Your task to perform on an android device: What's the news about the US dollar exchange rate? Image 0: 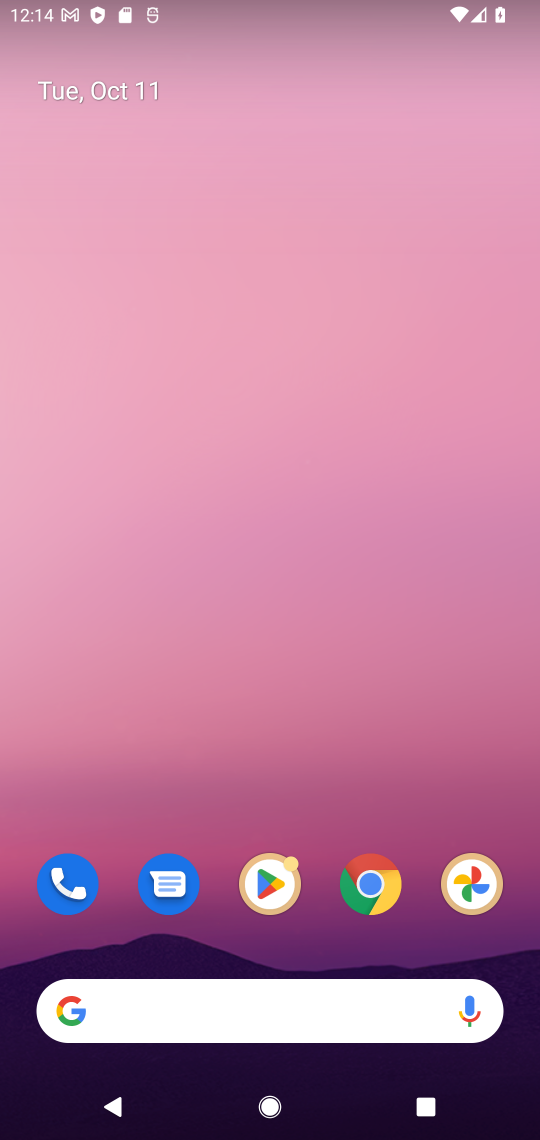
Step 0: click (257, 1017)
Your task to perform on an android device: What's the news about the US dollar exchange rate? Image 1: 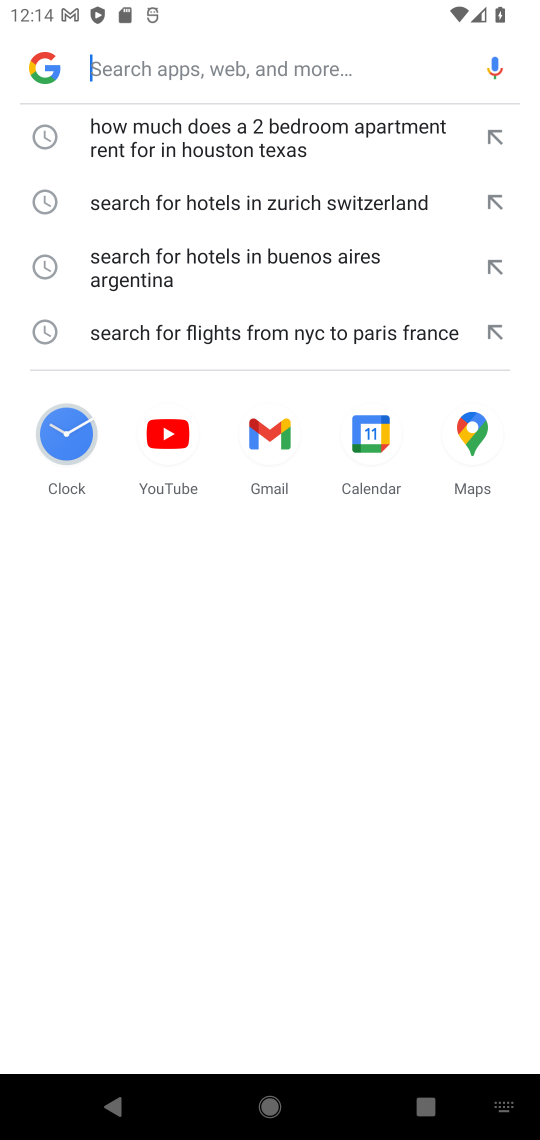
Step 1: type "What's the news about the US dollar exchange rate?"
Your task to perform on an android device: What's the news about the US dollar exchange rate? Image 2: 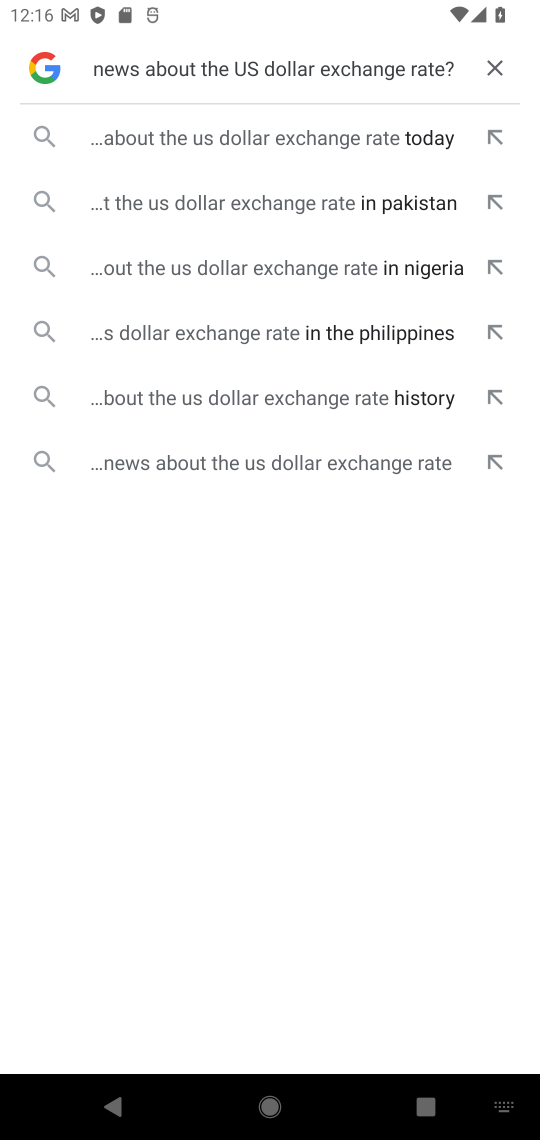
Step 2: click (431, 140)
Your task to perform on an android device: What's the news about the US dollar exchange rate? Image 3: 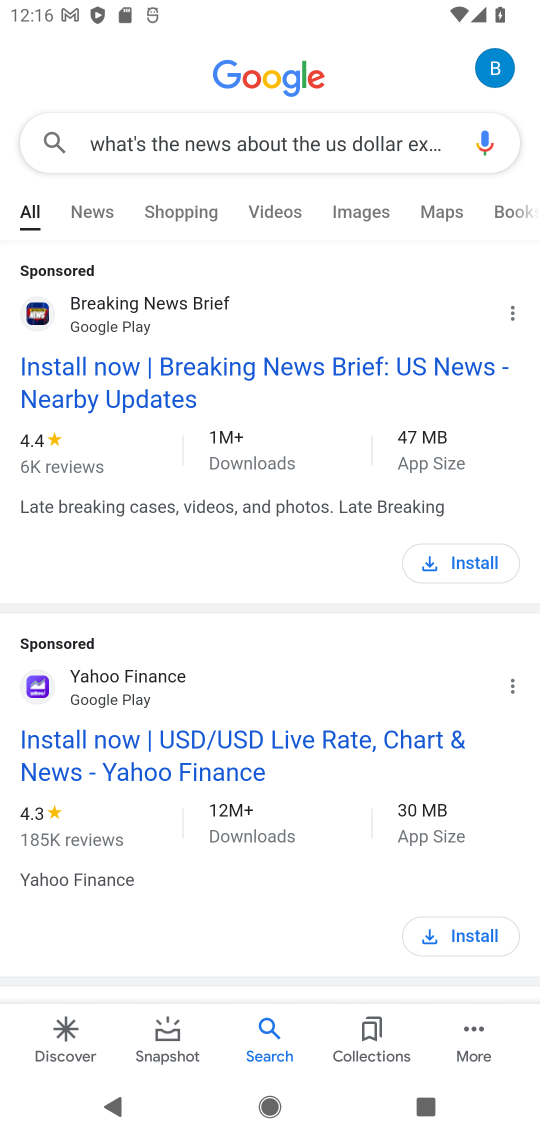
Step 3: click (333, 366)
Your task to perform on an android device: What's the news about the US dollar exchange rate? Image 4: 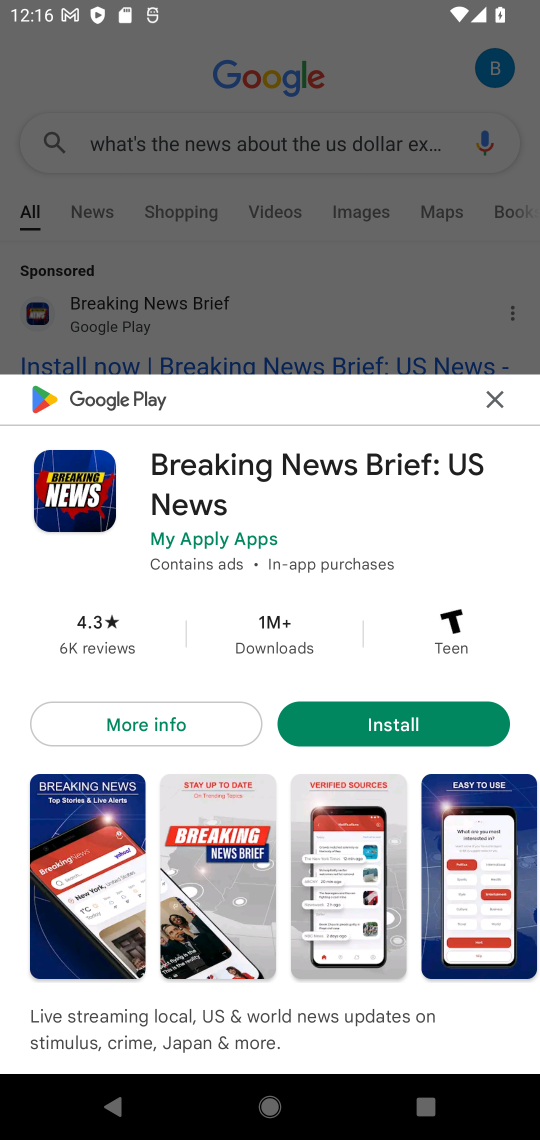
Step 4: task complete